Your task to perform on an android device: stop showing notifications on the lock screen Image 0: 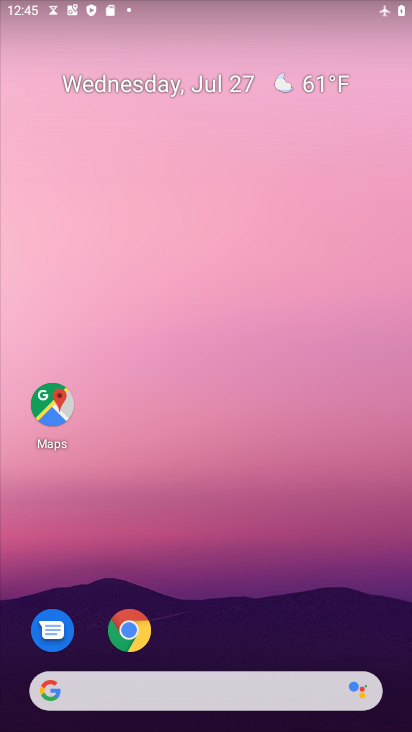
Step 0: drag from (200, 637) to (246, 270)
Your task to perform on an android device: stop showing notifications on the lock screen Image 1: 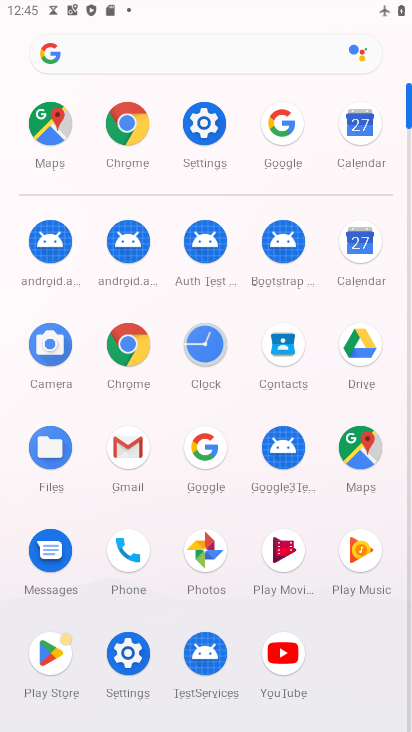
Step 1: click (222, 117)
Your task to perform on an android device: stop showing notifications on the lock screen Image 2: 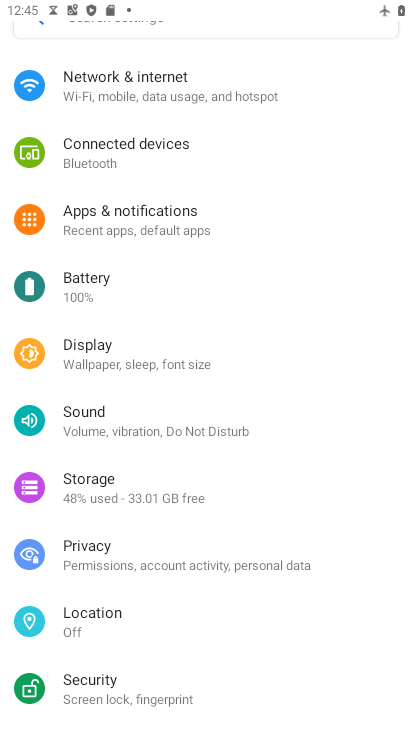
Step 2: click (98, 555)
Your task to perform on an android device: stop showing notifications on the lock screen Image 3: 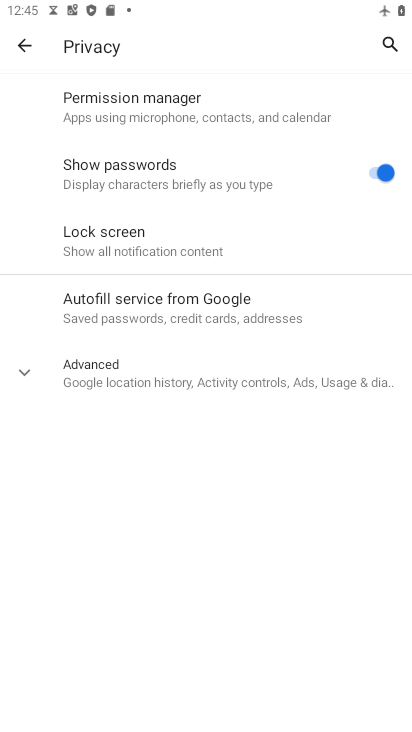
Step 3: click (141, 234)
Your task to perform on an android device: stop showing notifications on the lock screen Image 4: 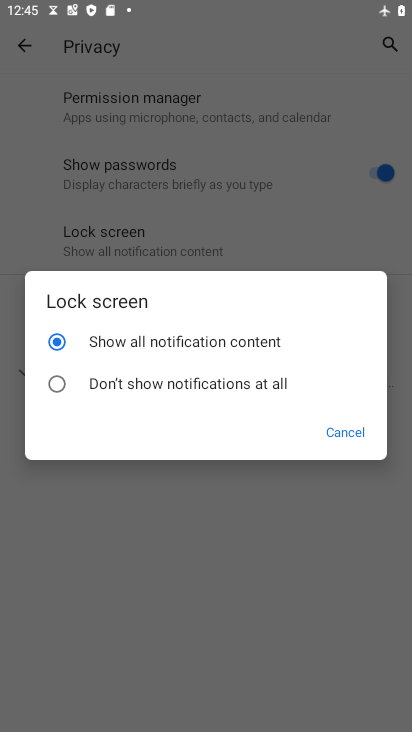
Step 4: click (141, 383)
Your task to perform on an android device: stop showing notifications on the lock screen Image 5: 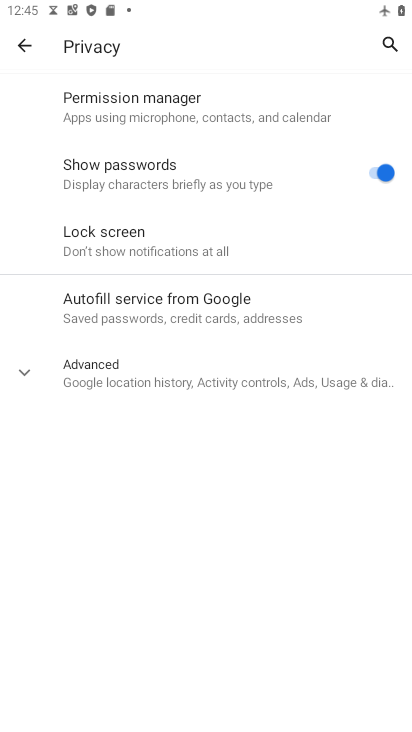
Step 5: task complete